Your task to perform on an android device: open app "Reddit" (install if not already installed) Image 0: 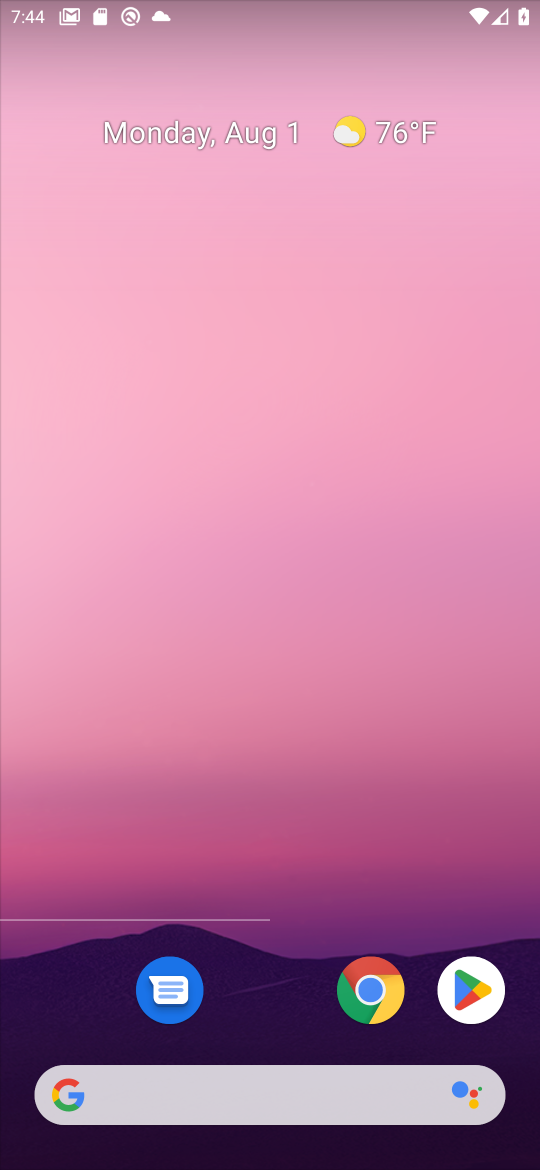
Step 0: press home button
Your task to perform on an android device: open app "Reddit" (install if not already installed) Image 1: 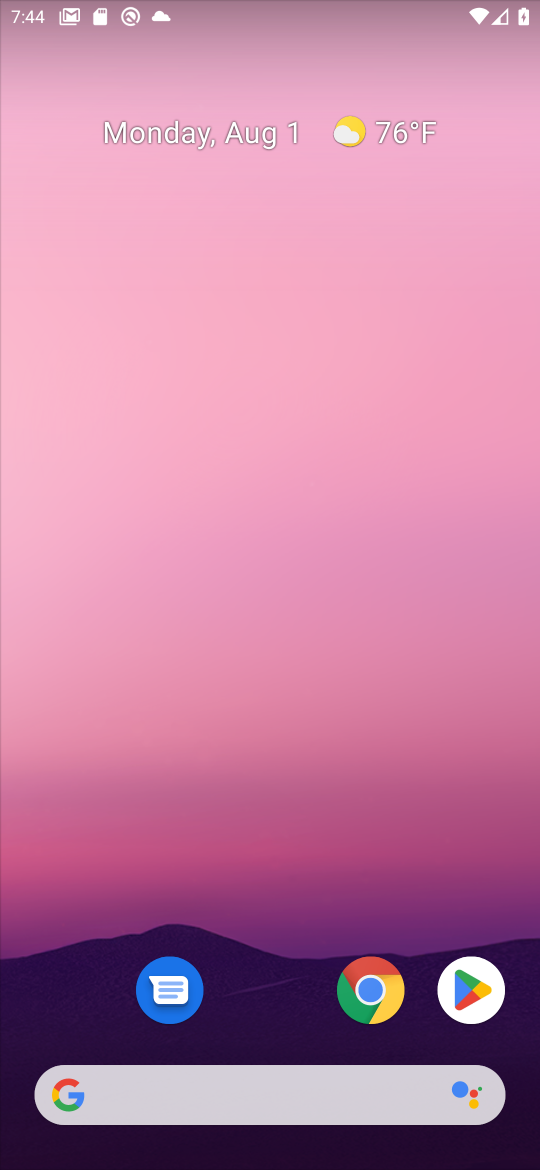
Step 1: click (485, 1004)
Your task to perform on an android device: open app "Reddit" (install if not already installed) Image 2: 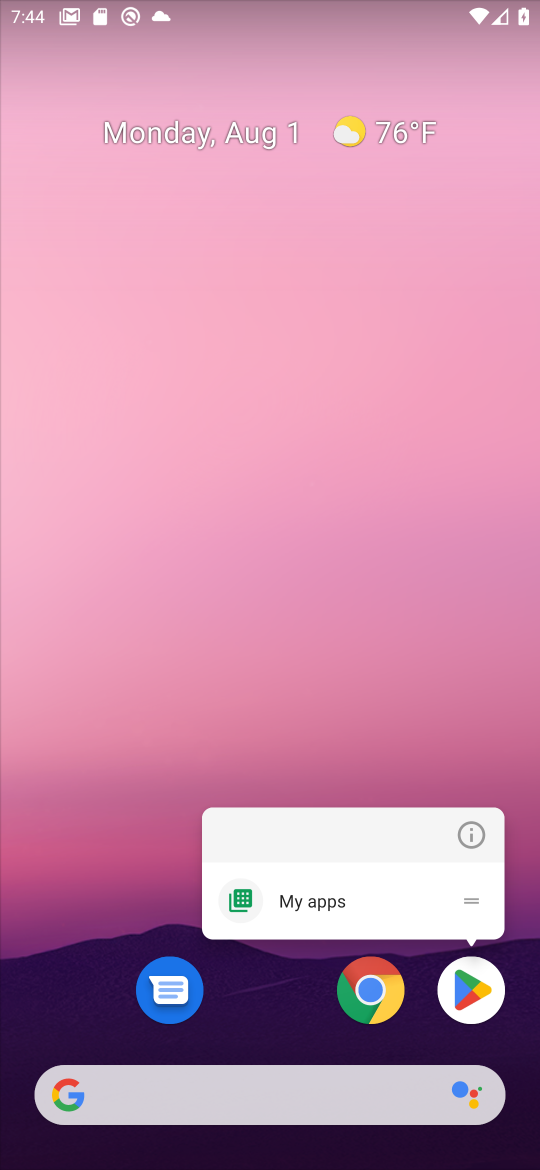
Step 2: click (460, 996)
Your task to perform on an android device: open app "Reddit" (install if not already installed) Image 3: 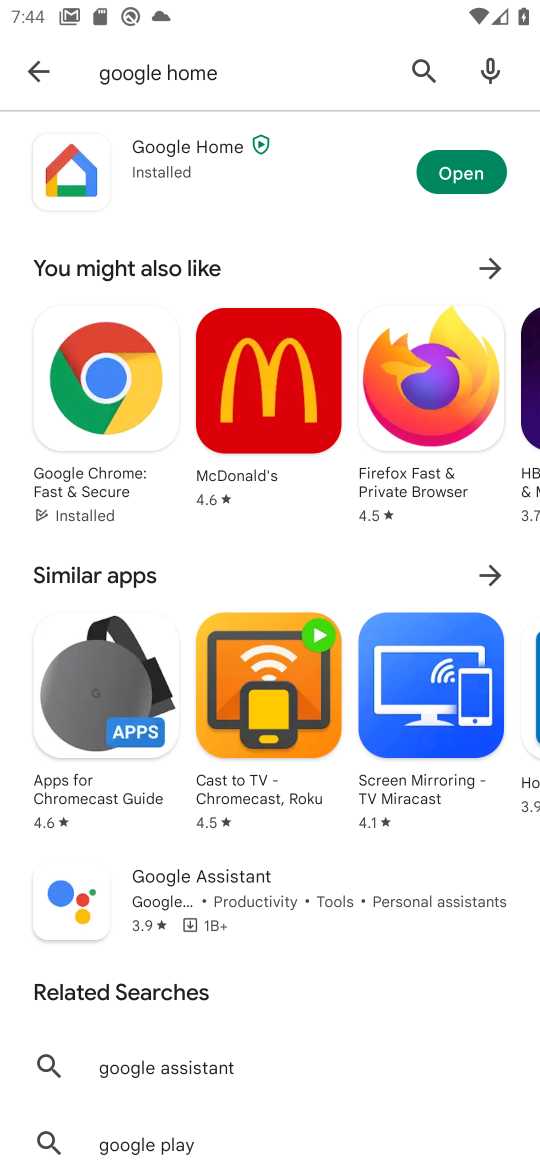
Step 3: click (424, 73)
Your task to perform on an android device: open app "Reddit" (install if not already installed) Image 4: 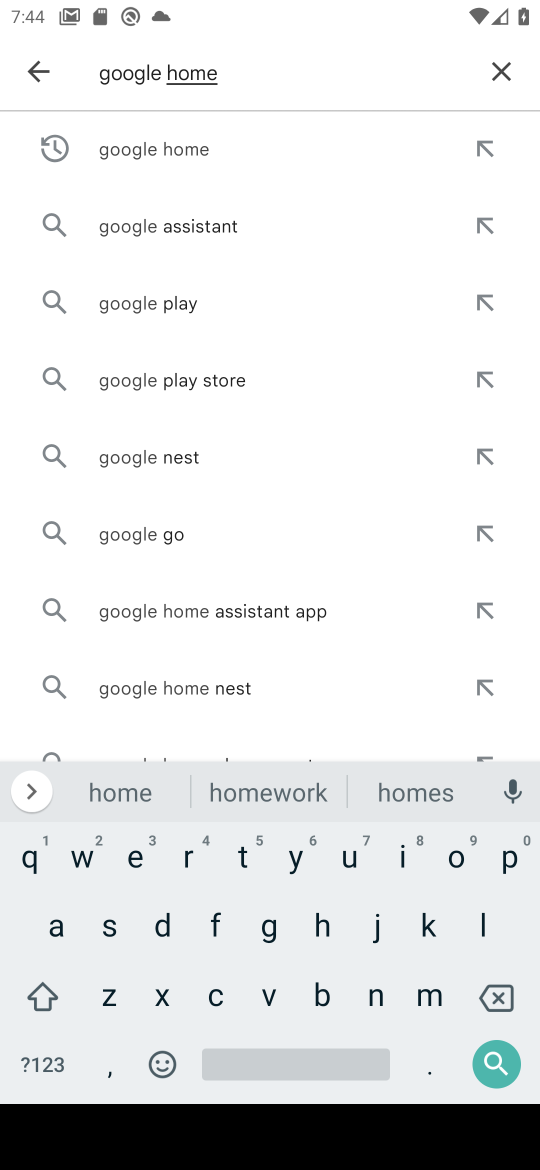
Step 4: click (500, 66)
Your task to perform on an android device: open app "Reddit" (install if not already installed) Image 5: 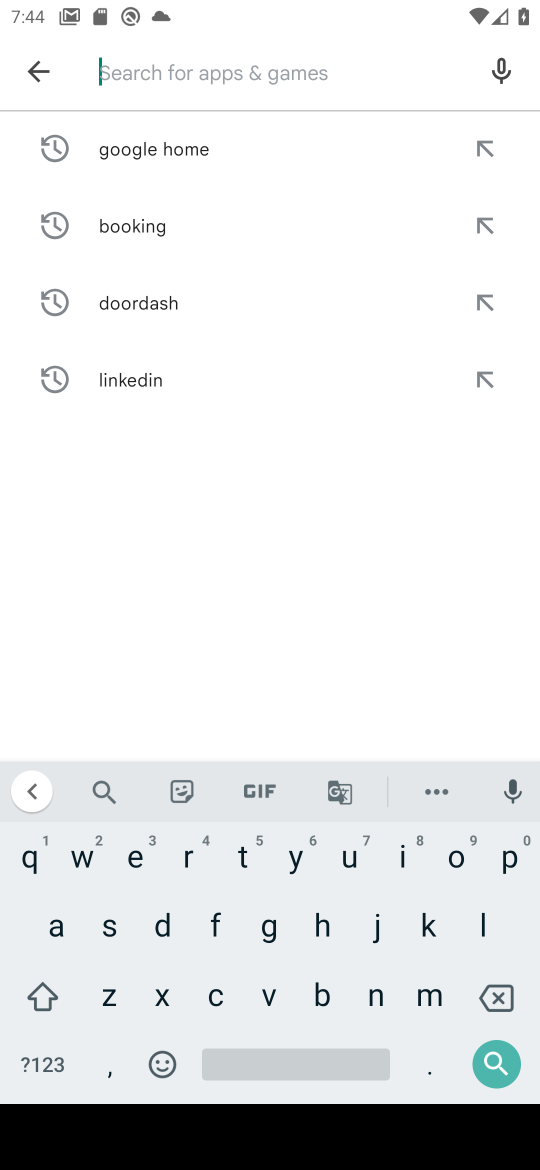
Step 5: click (179, 847)
Your task to perform on an android device: open app "Reddit" (install if not already installed) Image 6: 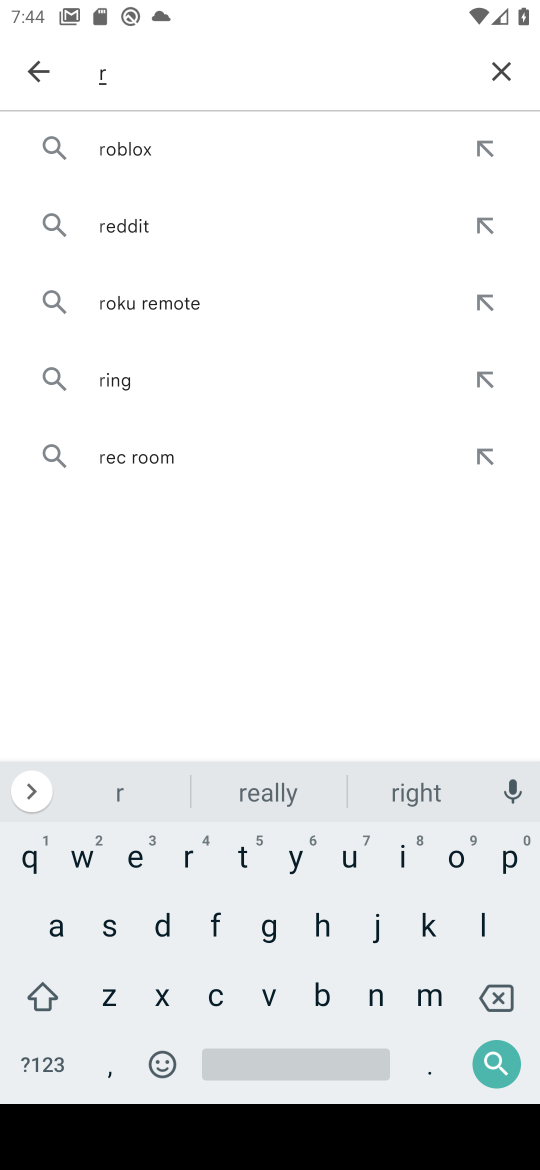
Step 6: click (123, 851)
Your task to perform on an android device: open app "Reddit" (install if not already installed) Image 7: 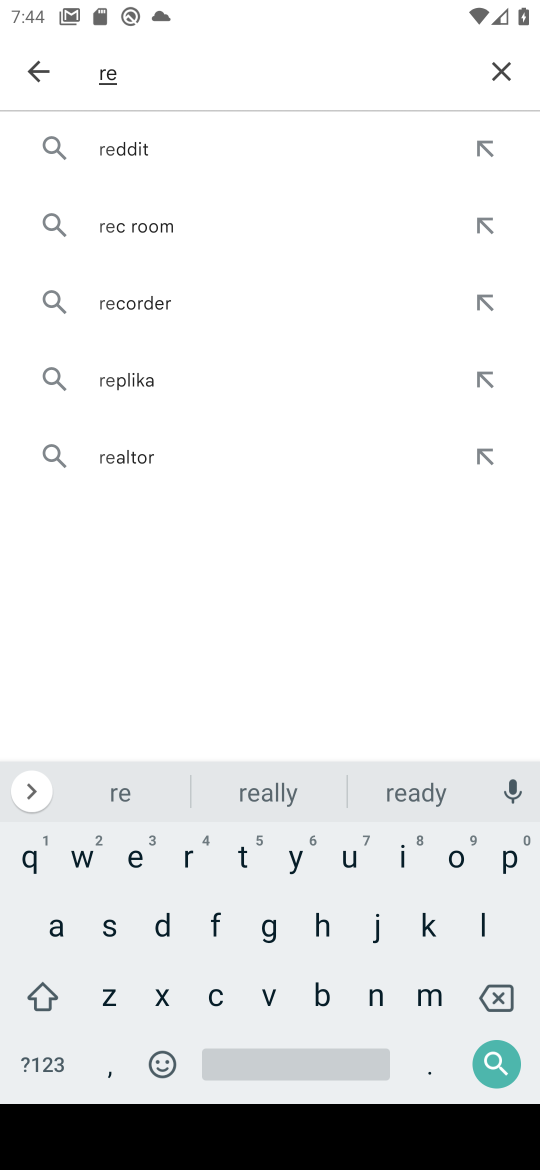
Step 7: click (151, 930)
Your task to perform on an android device: open app "Reddit" (install if not already installed) Image 8: 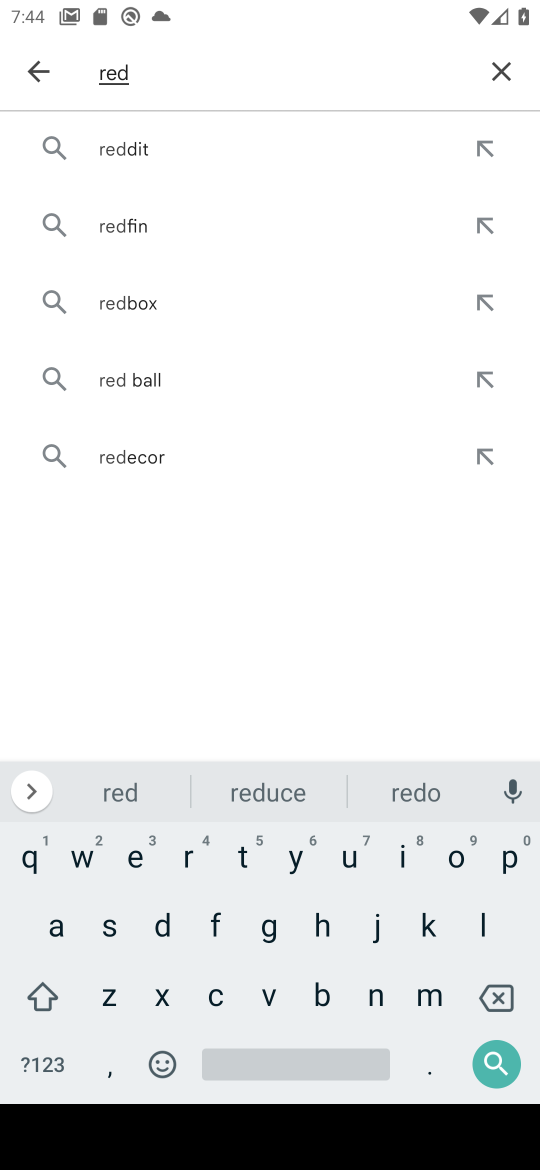
Step 8: click (151, 153)
Your task to perform on an android device: open app "Reddit" (install if not already installed) Image 9: 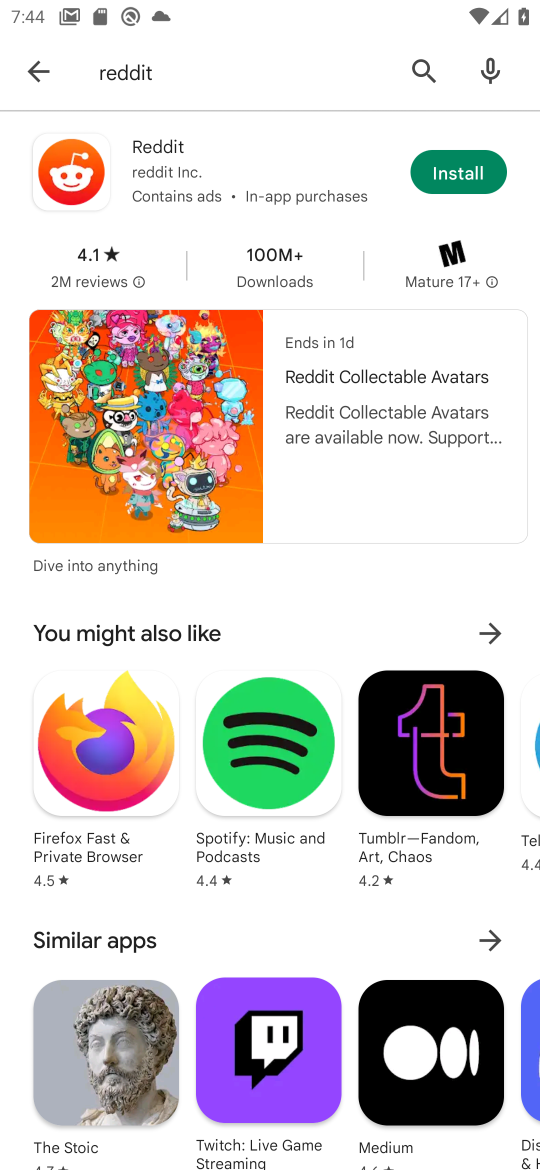
Step 9: click (447, 178)
Your task to perform on an android device: open app "Reddit" (install if not already installed) Image 10: 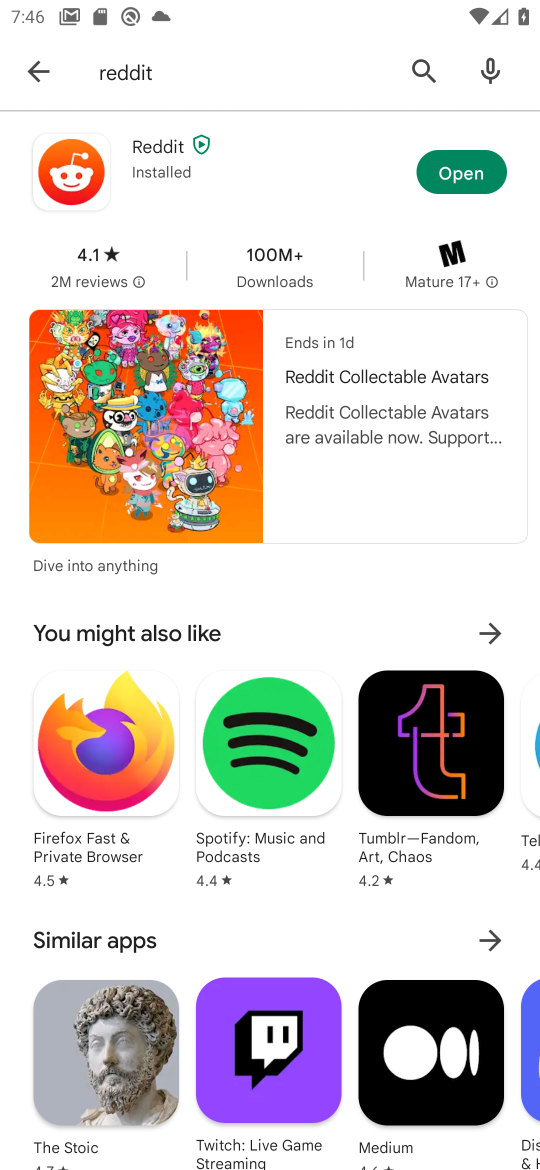
Step 10: click (435, 166)
Your task to perform on an android device: open app "Reddit" (install if not already installed) Image 11: 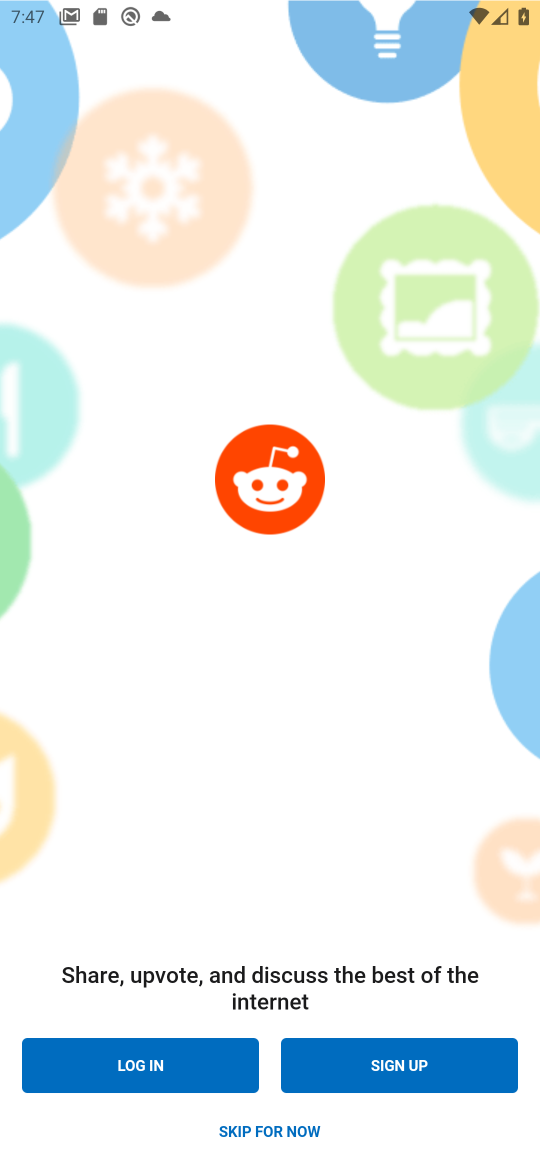
Step 11: task complete